Your task to perform on an android device: Add "energizer triple a" to the cart on ebay.com, then select checkout. Image 0: 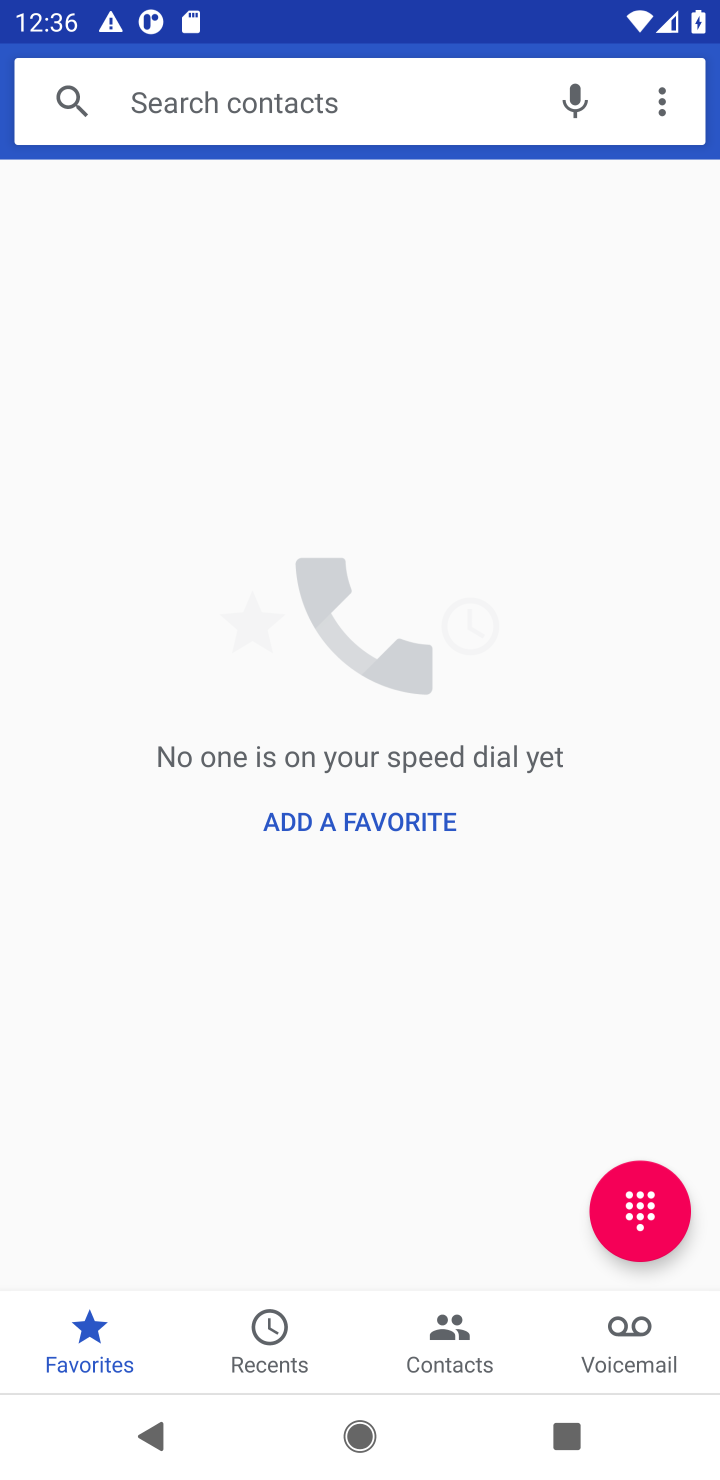
Step 0: press home button
Your task to perform on an android device: Add "energizer triple a" to the cart on ebay.com, then select checkout. Image 1: 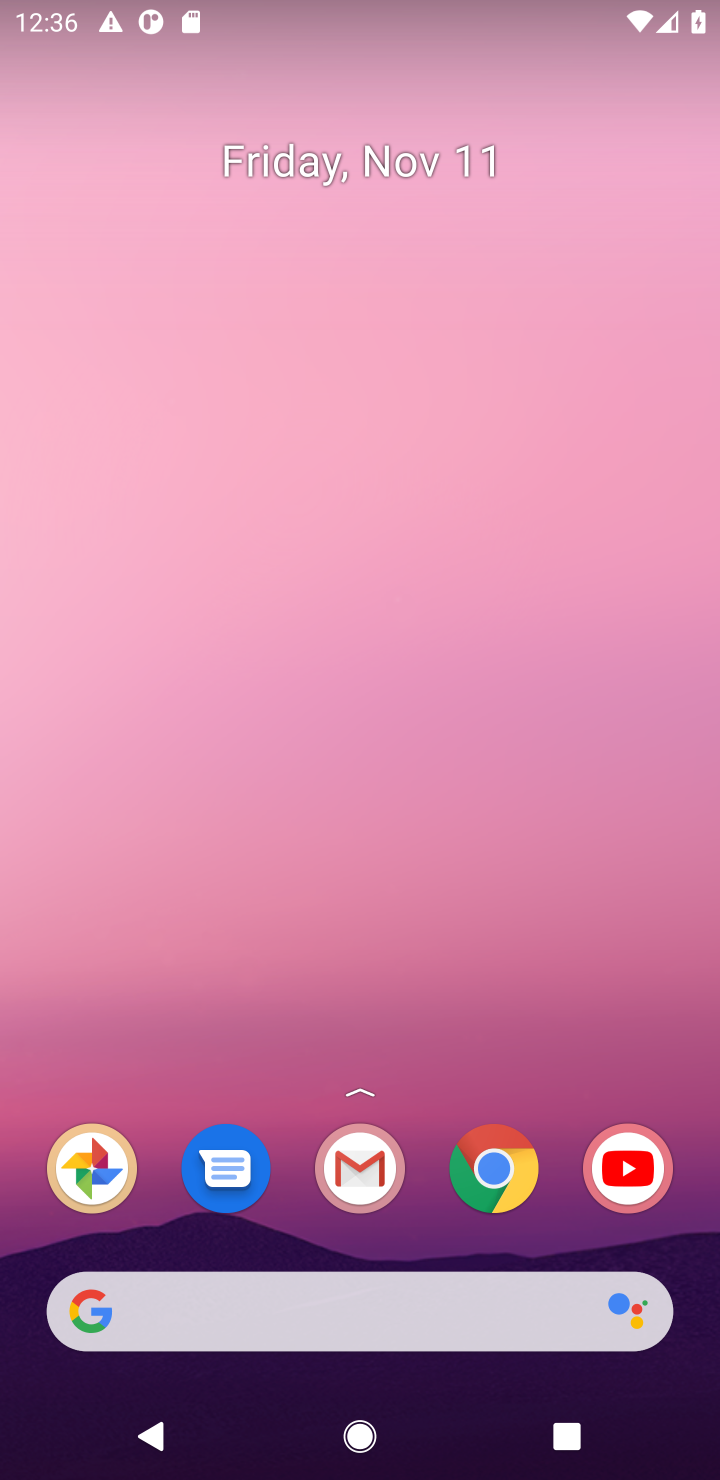
Step 1: click (502, 1178)
Your task to perform on an android device: Add "energizer triple a" to the cart on ebay.com, then select checkout. Image 2: 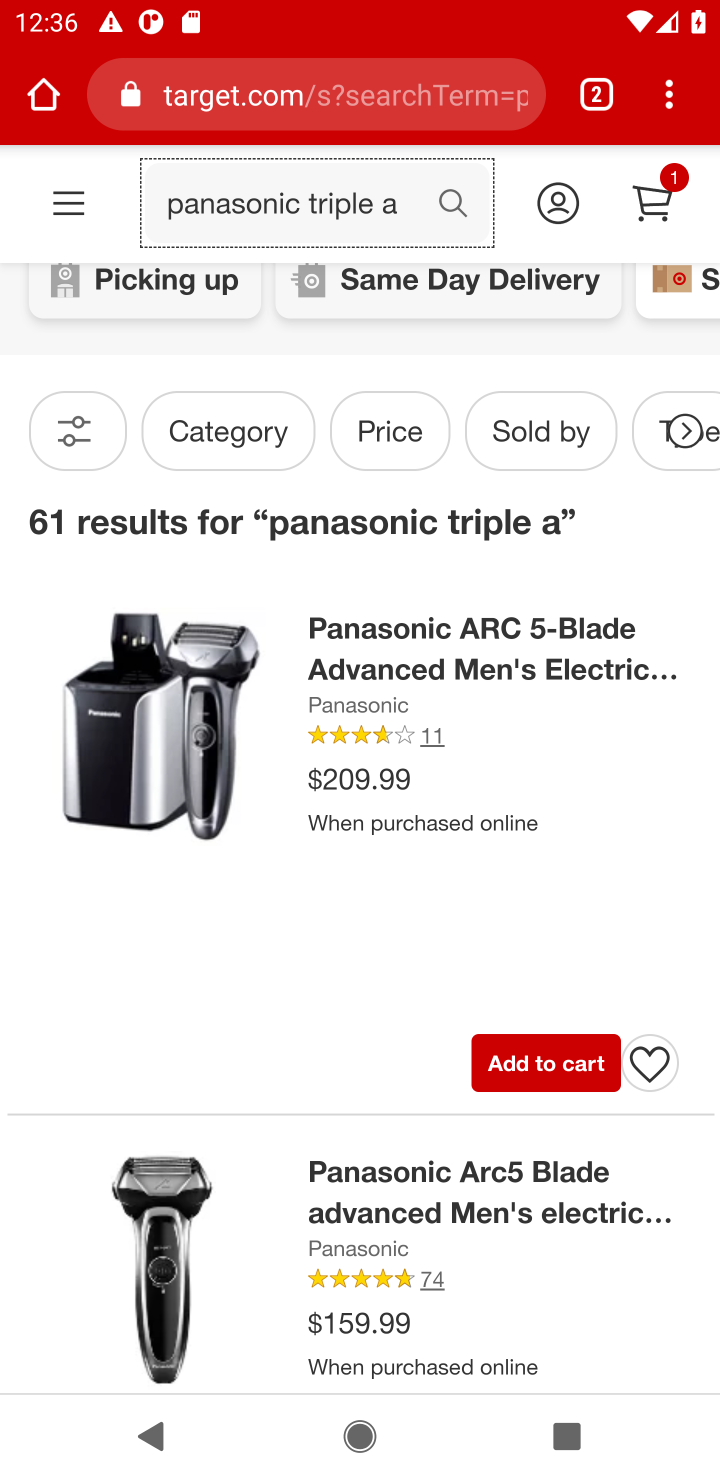
Step 2: click (274, 93)
Your task to perform on an android device: Add "energizer triple a" to the cart on ebay.com, then select checkout. Image 3: 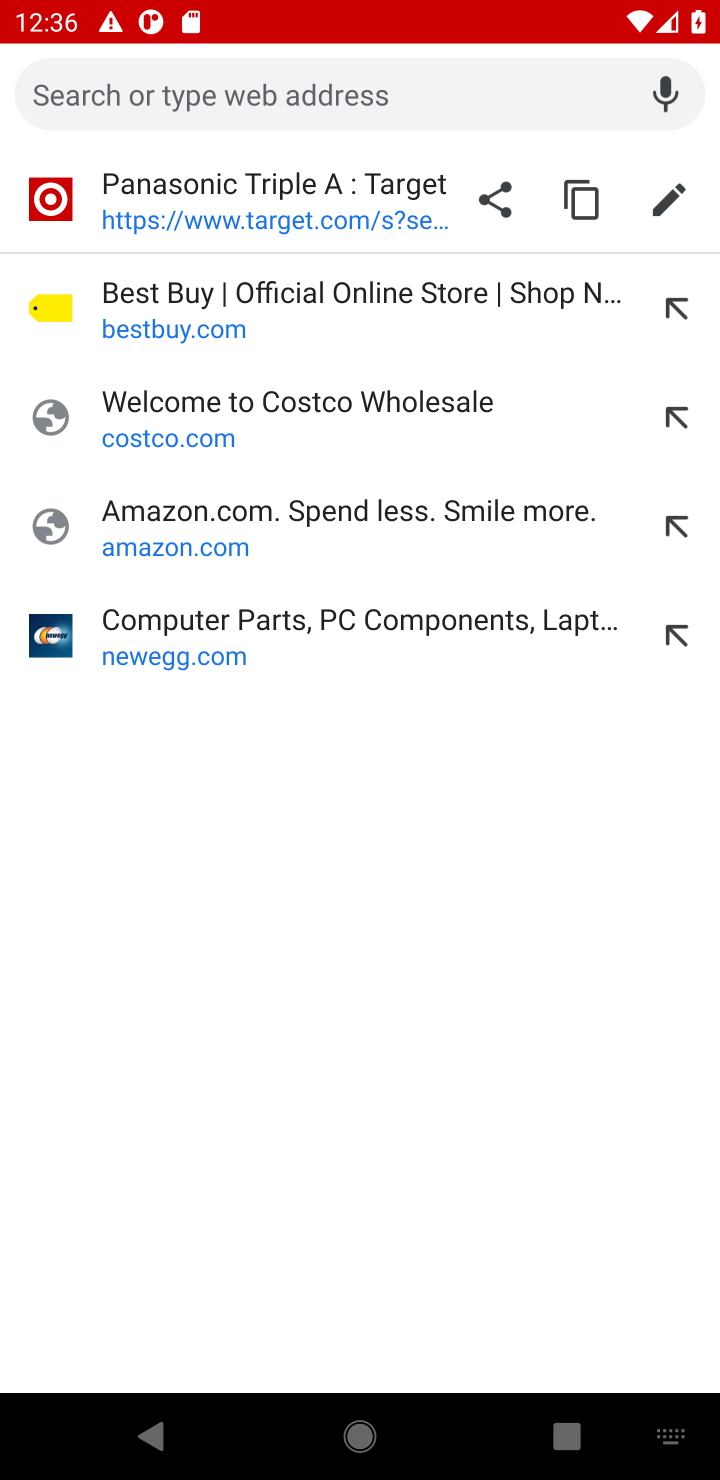
Step 3: type "ebay.com"
Your task to perform on an android device: Add "energizer triple a" to the cart on ebay.com, then select checkout. Image 4: 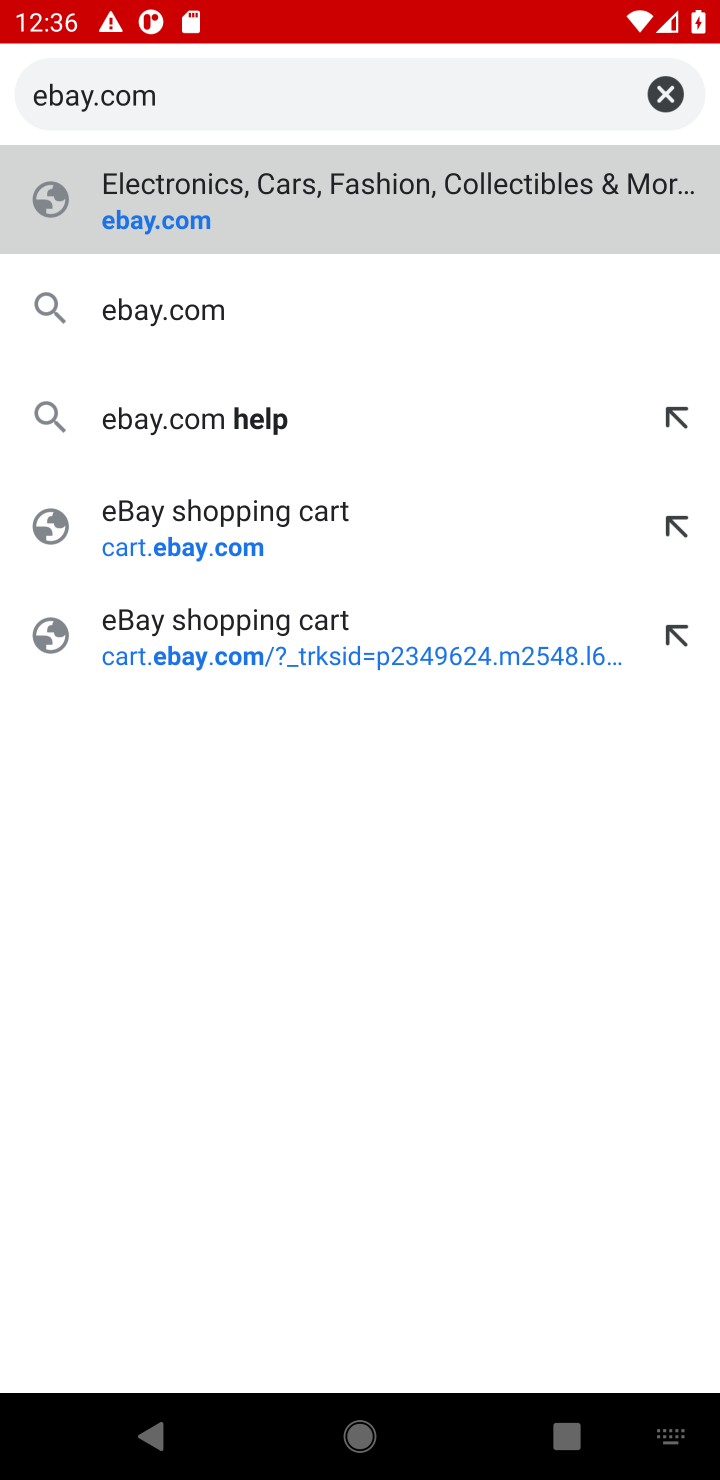
Step 4: click (129, 228)
Your task to perform on an android device: Add "energizer triple a" to the cart on ebay.com, then select checkout. Image 5: 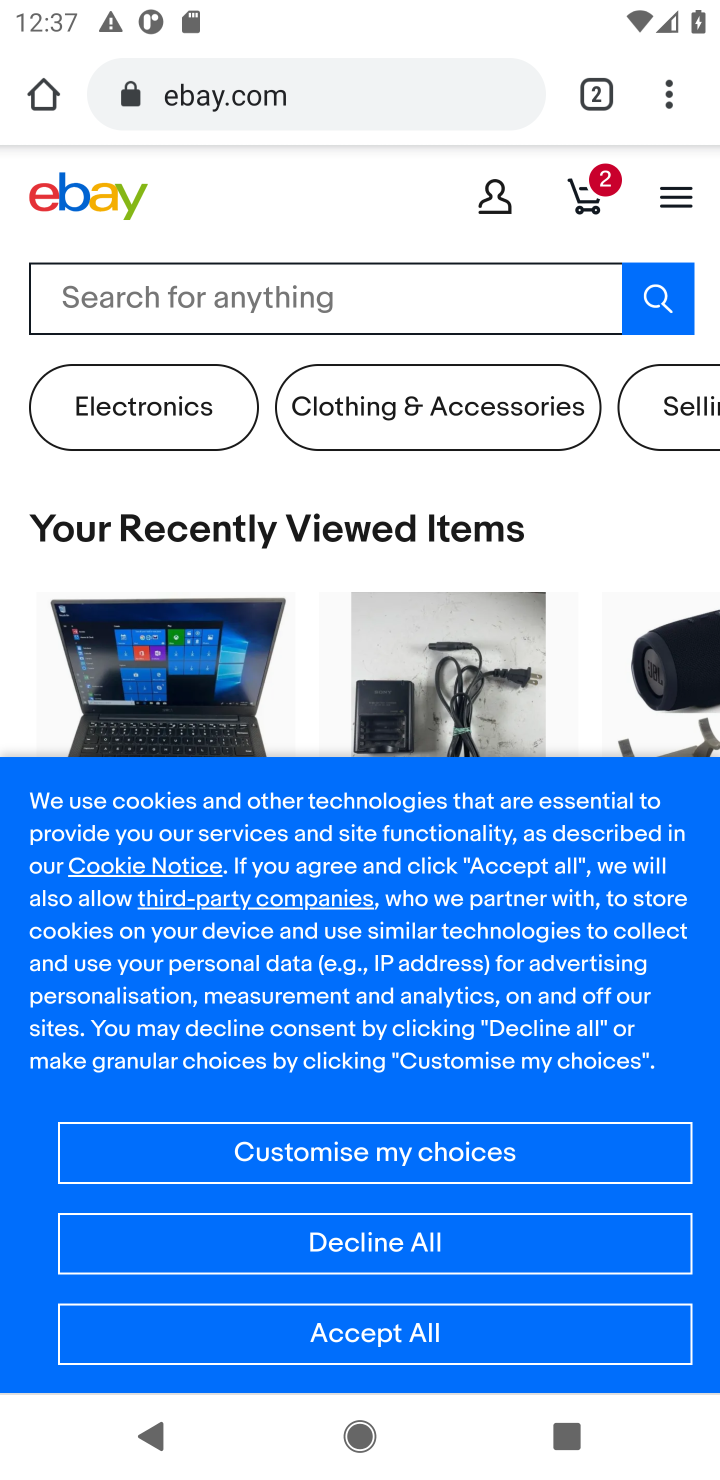
Step 5: click (169, 299)
Your task to perform on an android device: Add "energizer triple a" to the cart on ebay.com, then select checkout. Image 6: 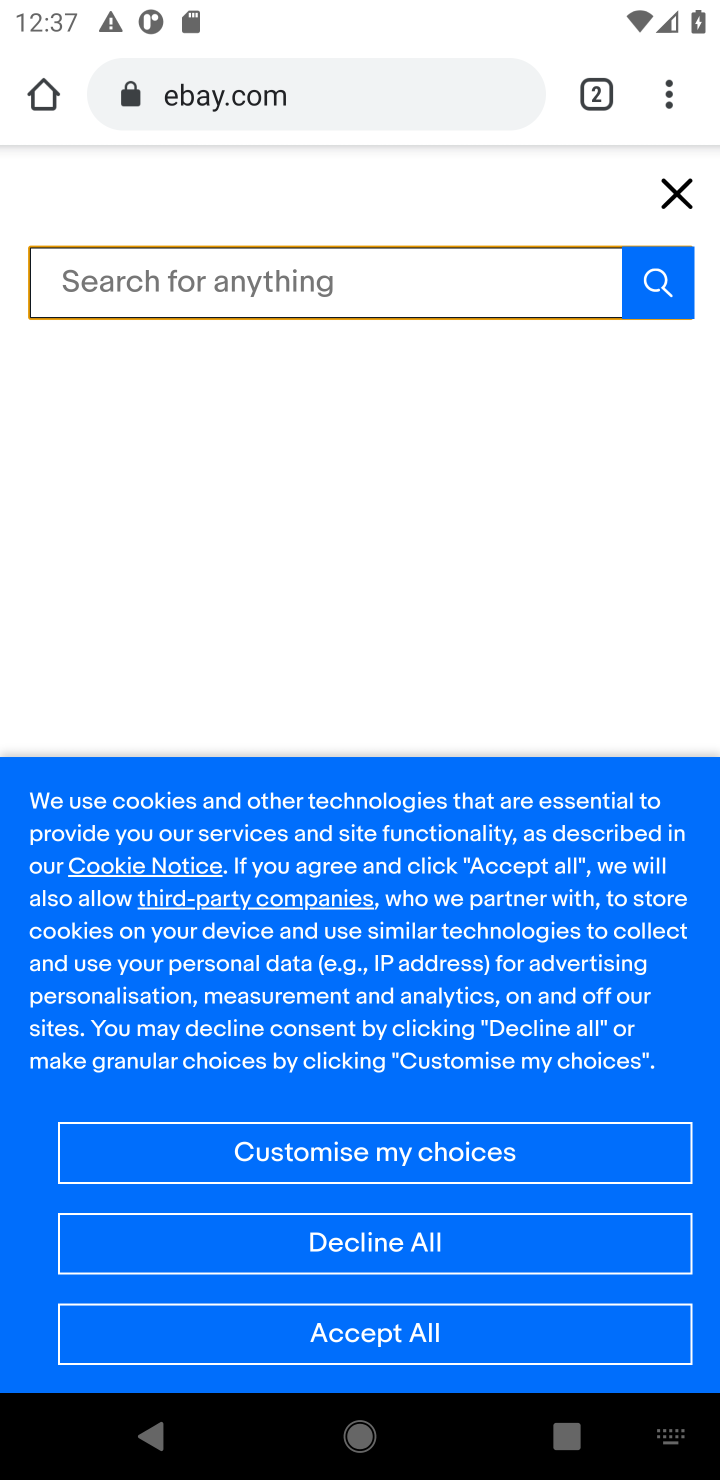
Step 6: type "energizer triple a"
Your task to perform on an android device: Add "energizer triple a" to the cart on ebay.com, then select checkout. Image 7: 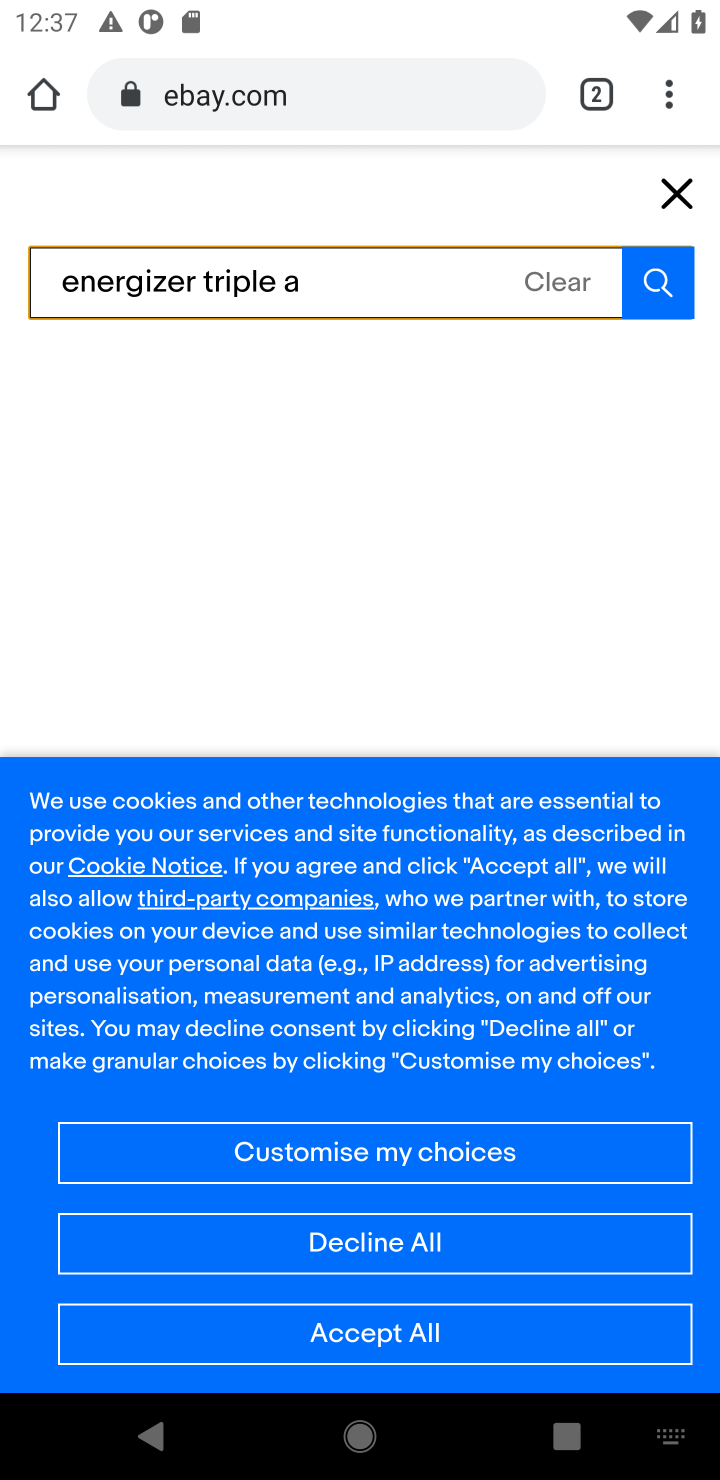
Step 7: click (659, 278)
Your task to perform on an android device: Add "energizer triple a" to the cart on ebay.com, then select checkout. Image 8: 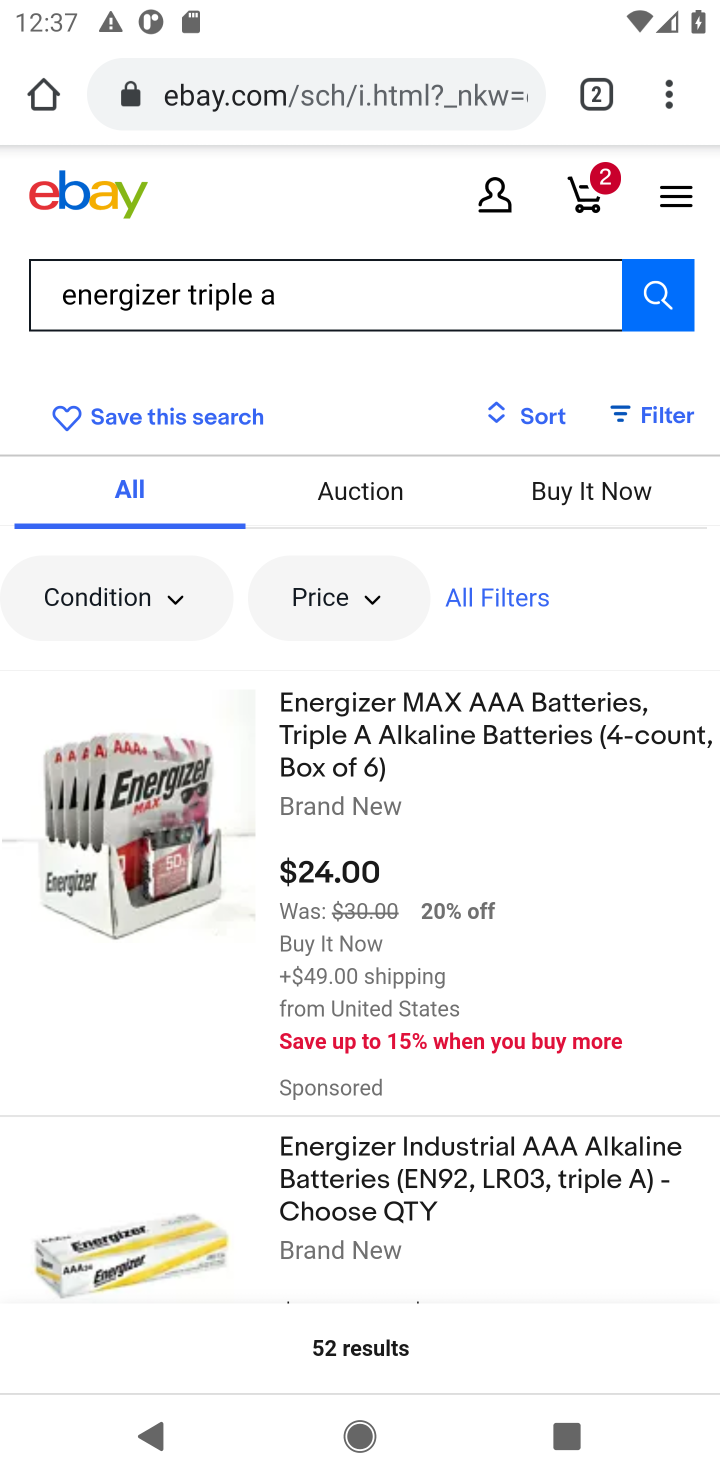
Step 8: click (165, 905)
Your task to perform on an android device: Add "energizer triple a" to the cart on ebay.com, then select checkout. Image 9: 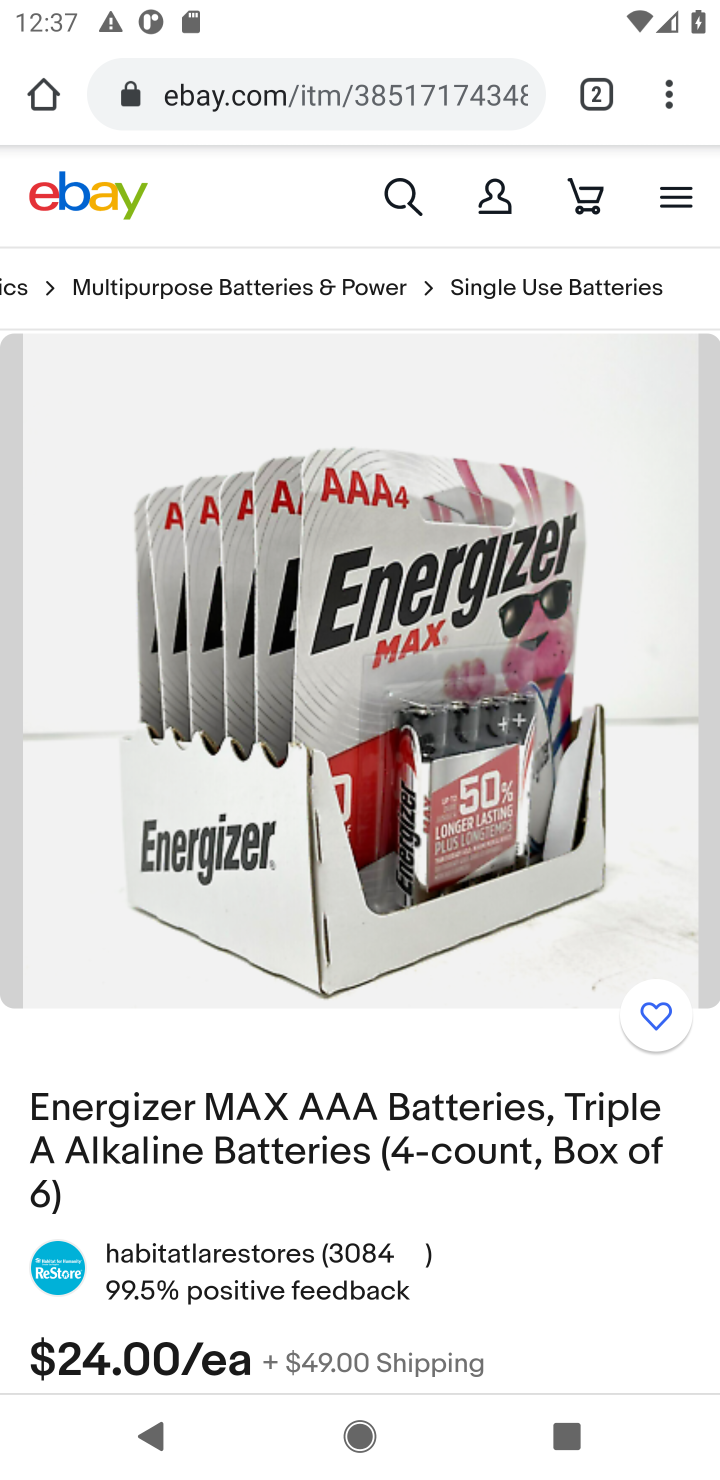
Step 9: drag from (442, 994) to (442, 468)
Your task to perform on an android device: Add "energizer triple a" to the cart on ebay.com, then select checkout. Image 10: 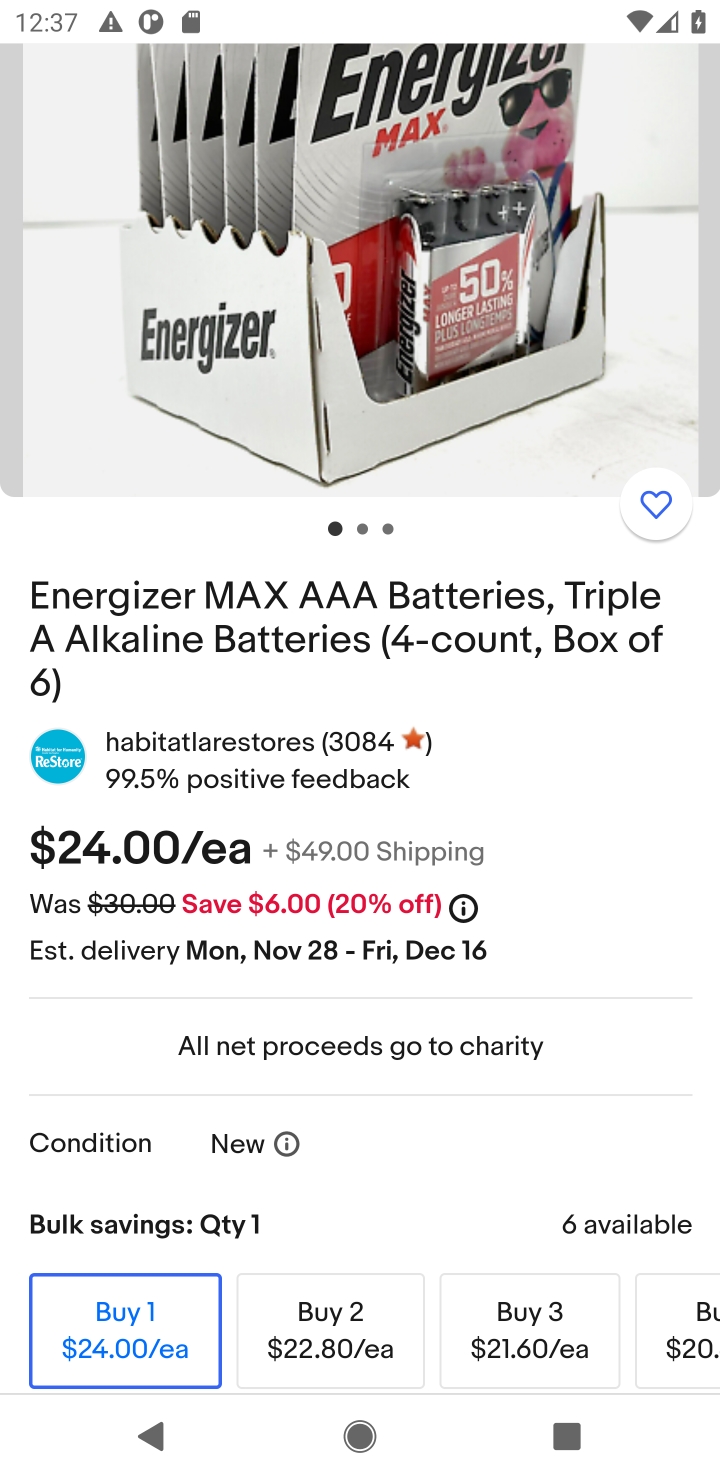
Step 10: drag from (465, 894) to (465, 512)
Your task to perform on an android device: Add "energizer triple a" to the cart on ebay.com, then select checkout. Image 11: 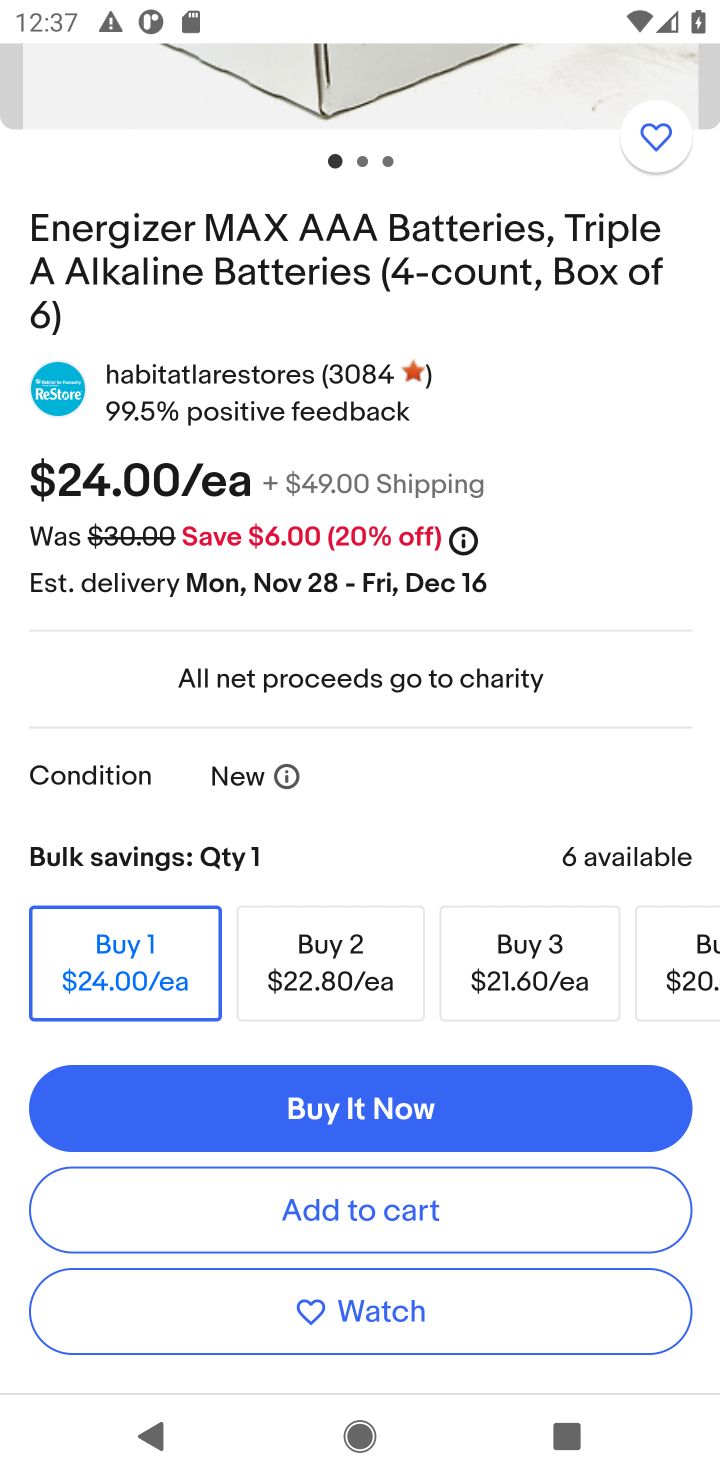
Step 11: click (363, 1197)
Your task to perform on an android device: Add "energizer triple a" to the cart on ebay.com, then select checkout. Image 12: 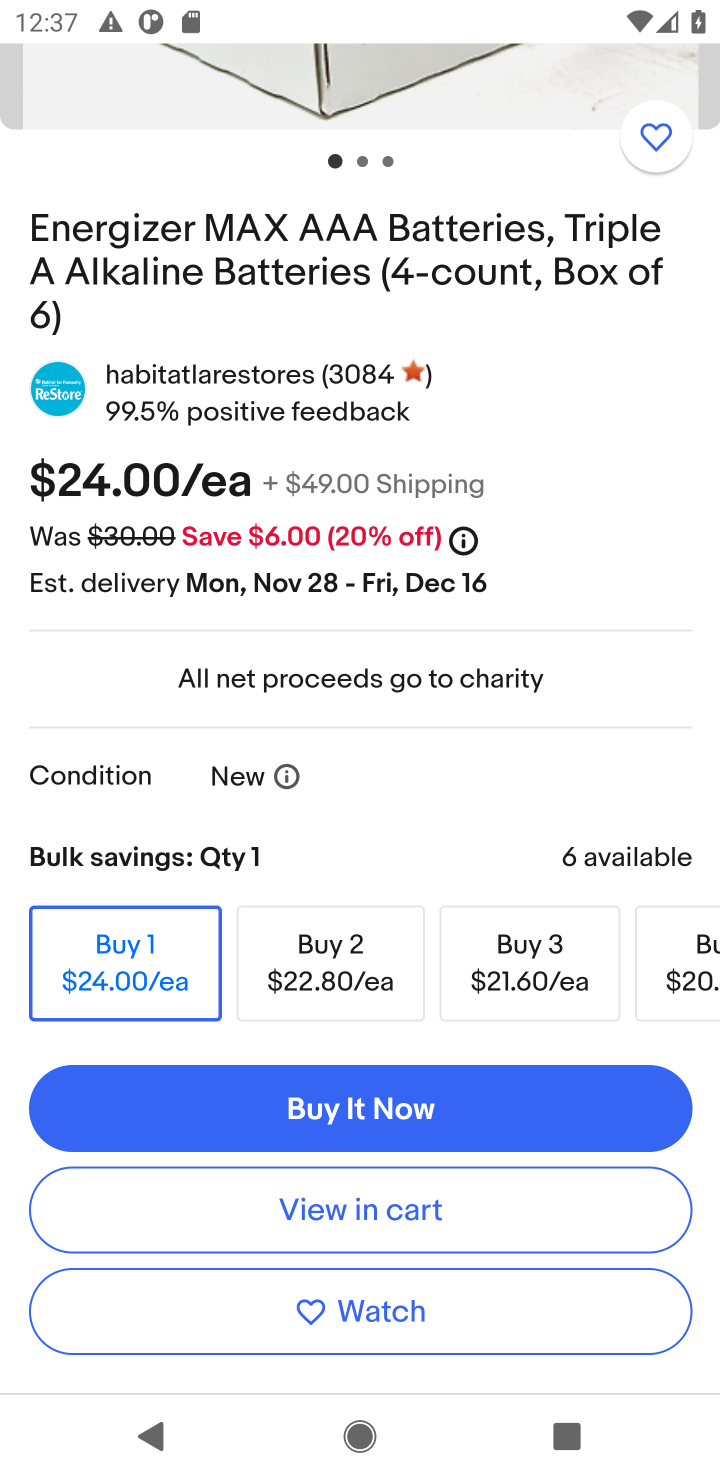
Step 12: click (363, 1197)
Your task to perform on an android device: Add "energizer triple a" to the cart on ebay.com, then select checkout. Image 13: 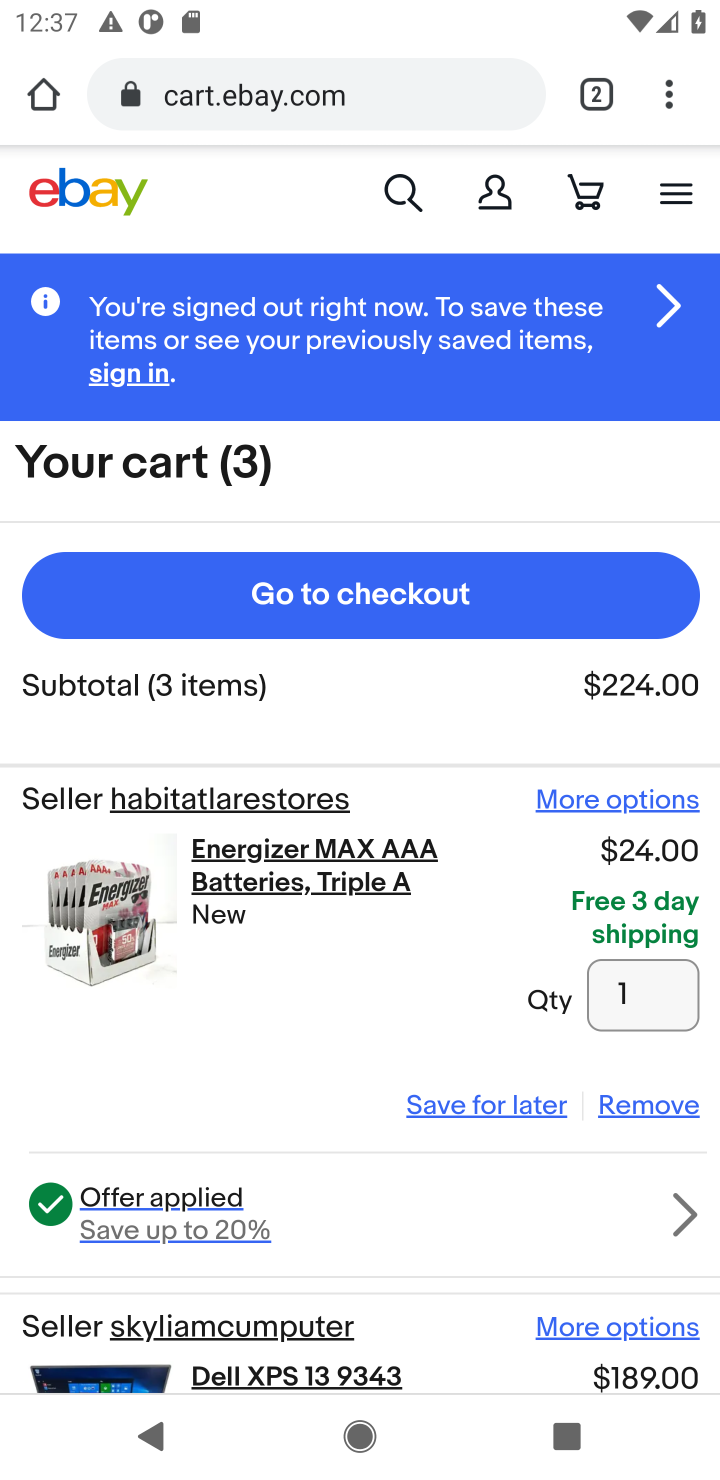
Step 13: click (367, 601)
Your task to perform on an android device: Add "energizer triple a" to the cart on ebay.com, then select checkout. Image 14: 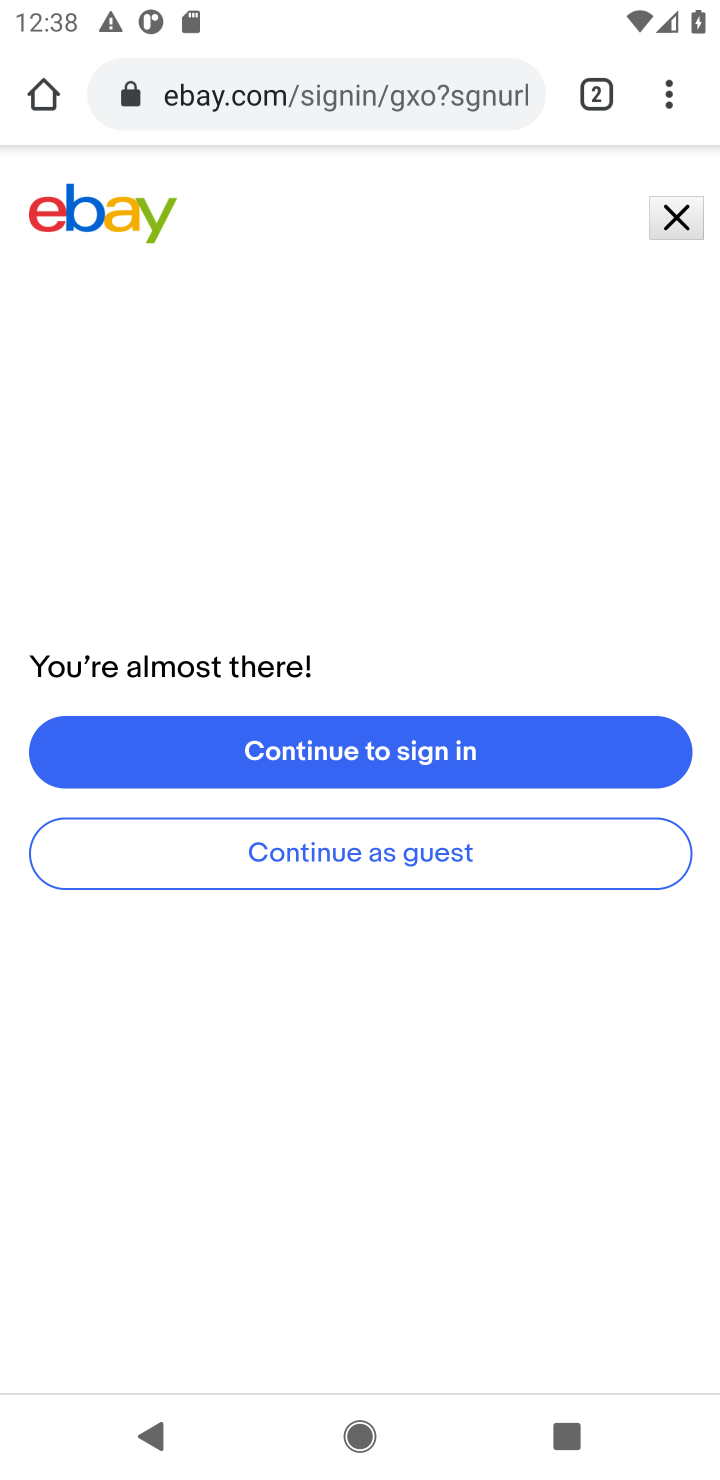
Step 14: task complete